Your task to perform on an android device: Add usb-c to usb-b to the cart on costco.com Image 0: 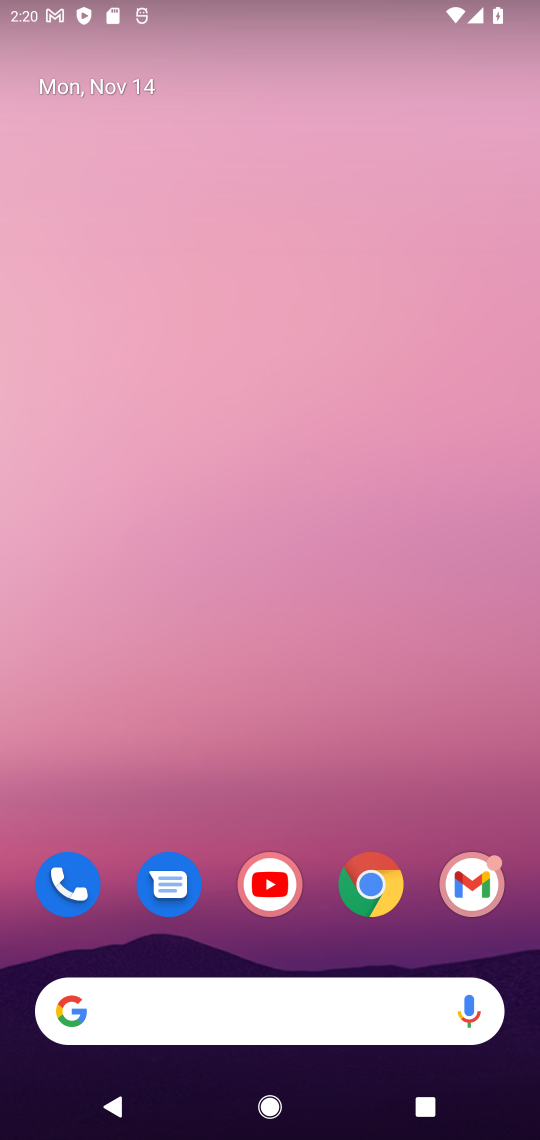
Step 0: click (378, 866)
Your task to perform on an android device: Add usb-c to usb-b to the cart on costco.com Image 1: 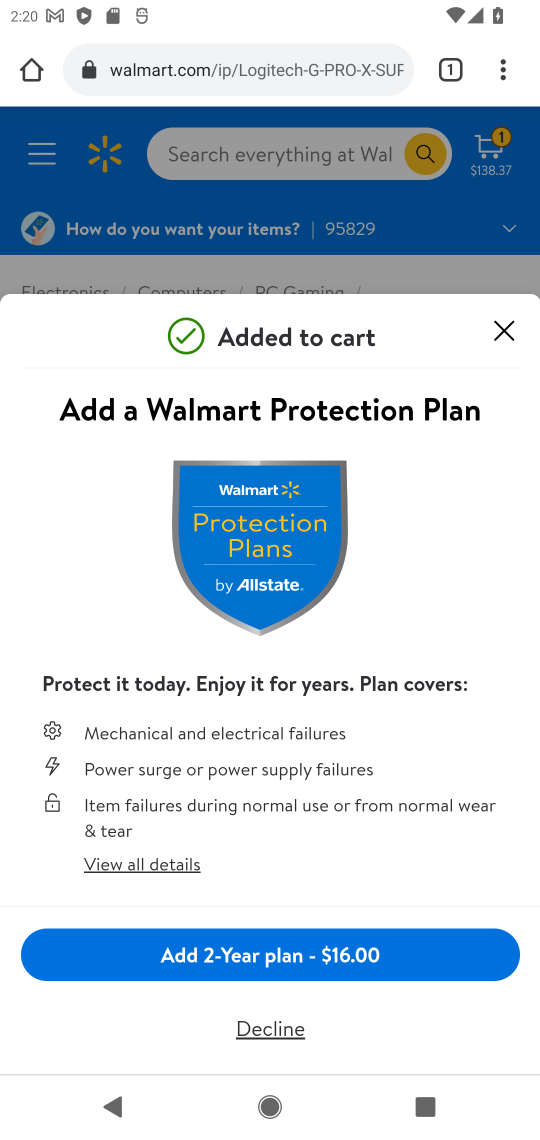
Step 1: click (346, 54)
Your task to perform on an android device: Add usb-c to usb-b to the cart on costco.com Image 2: 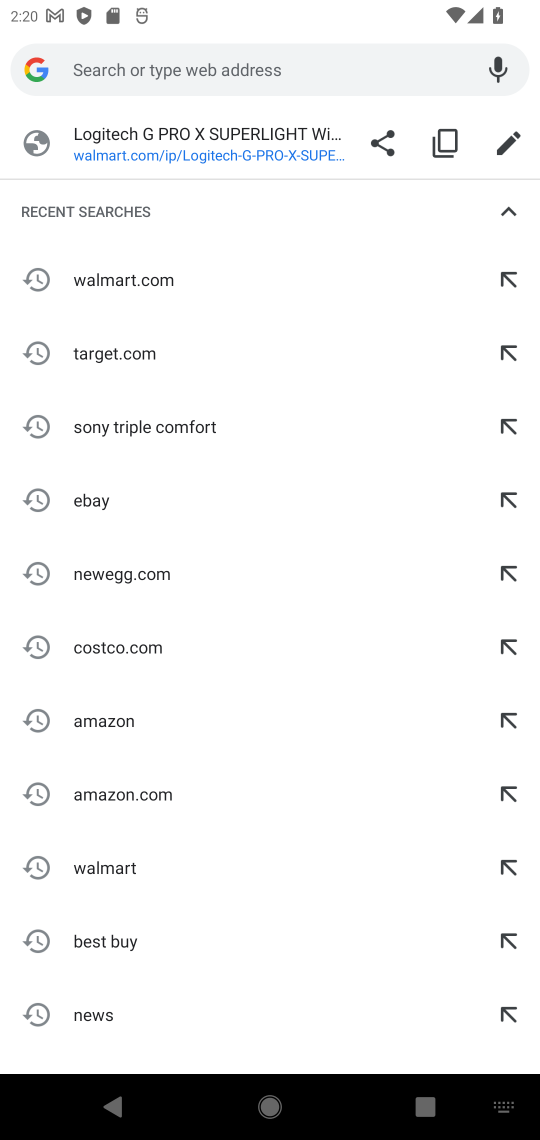
Step 2: click (146, 643)
Your task to perform on an android device: Add usb-c to usb-b to the cart on costco.com Image 3: 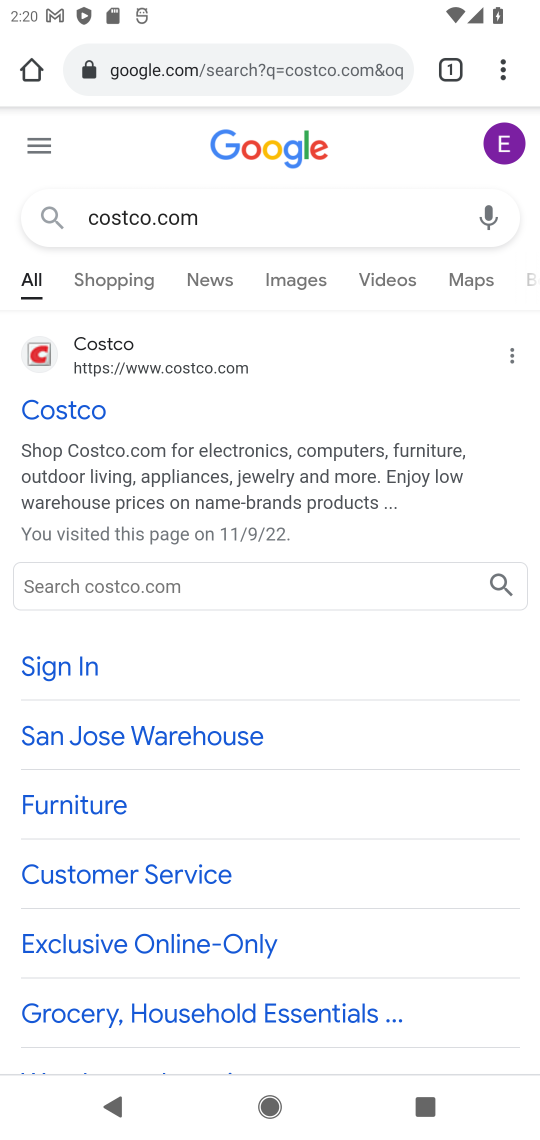
Step 3: click (118, 357)
Your task to perform on an android device: Add usb-c to usb-b to the cart on costco.com Image 4: 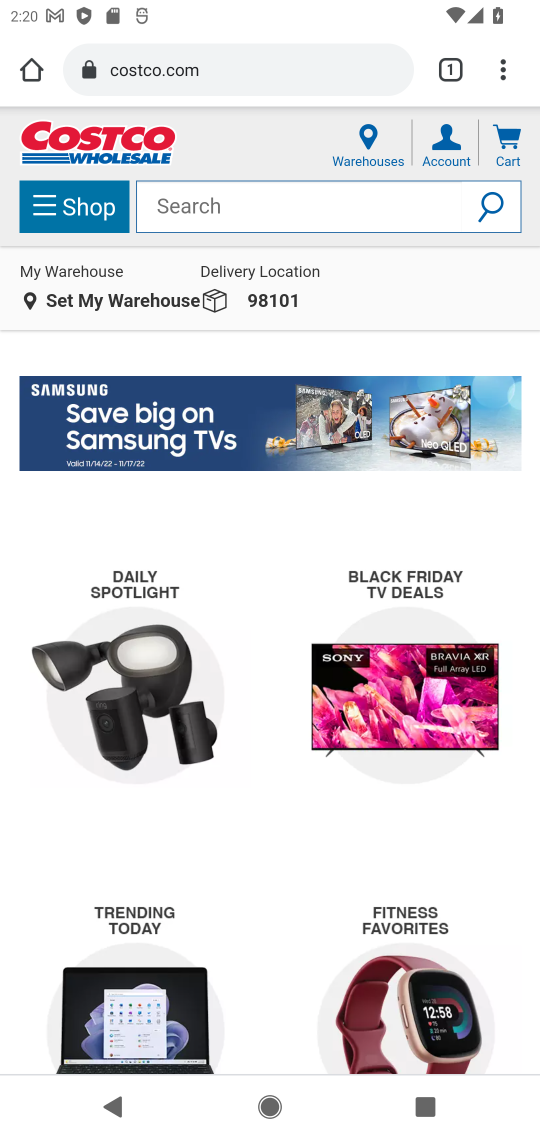
Step 4: click (396, 212)
Your task to perform on an android device: Add usb-c to usb-b to the cart on costco.com Image 5: 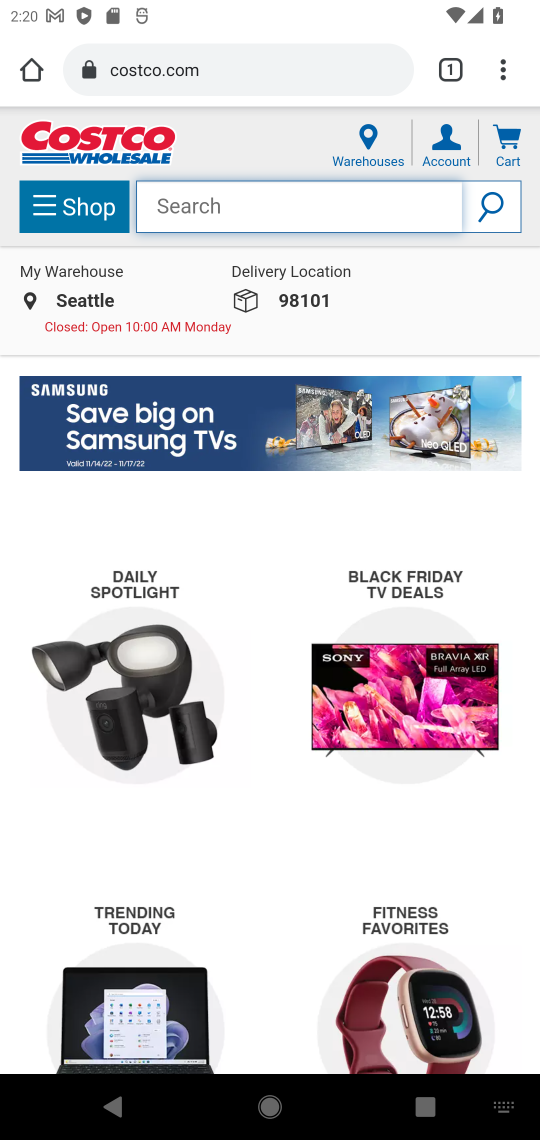
Step 5: press enter
Your task to perform on an android device: Add usb-c to usb-b to the cart on costco.com Image 6: 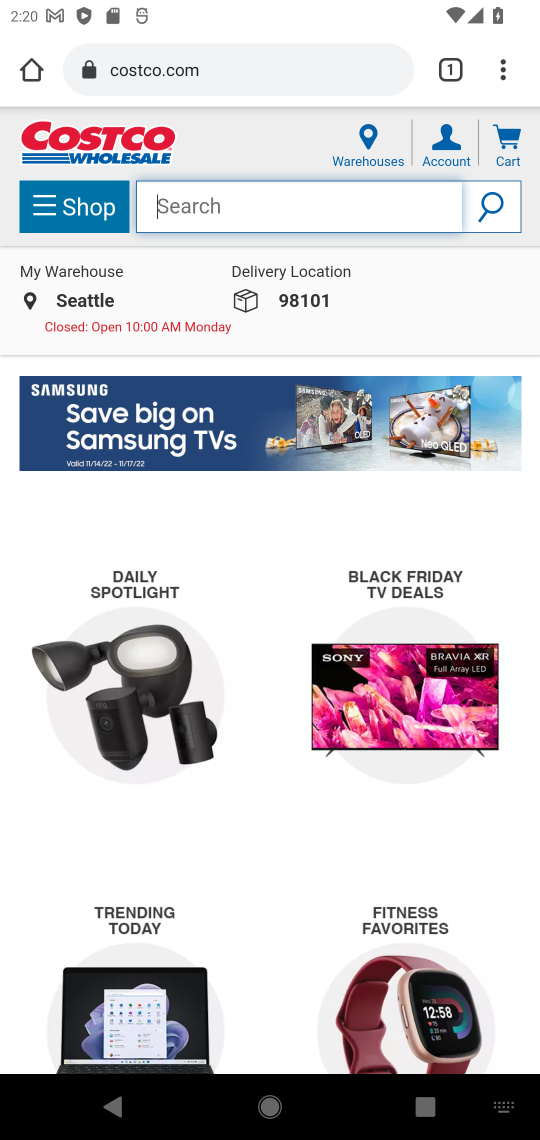
Step 6: type "usb-c to usb-b"
Your task to perform on an android device: Add usb-c to usb-b to the cart on costco.com Image 7: 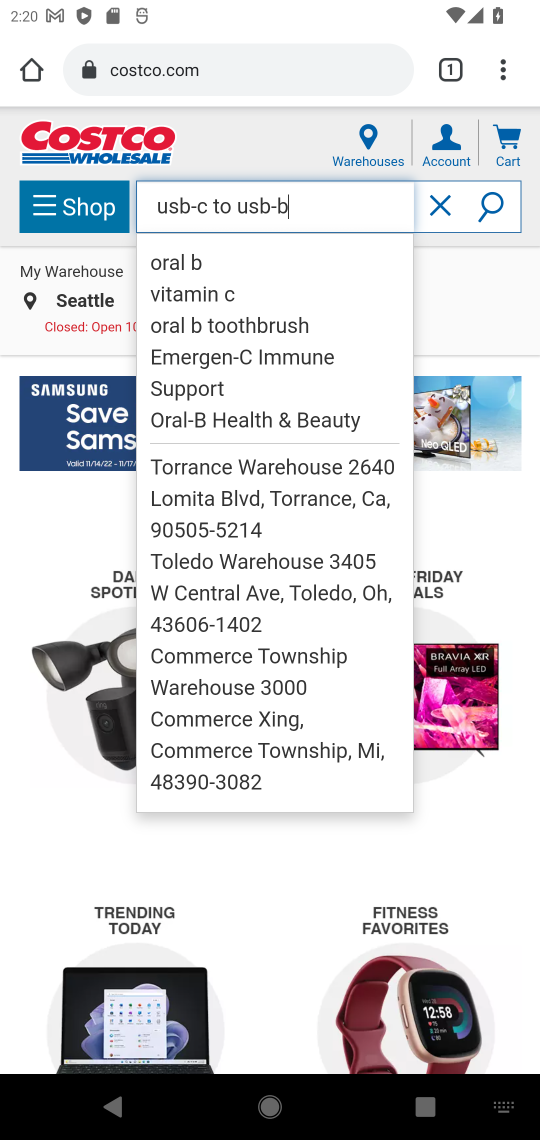
Step 7: click (495, 197)
Your task to perform on an android device: Add usb-c to usb-b to the cart on costco.com Image 8: 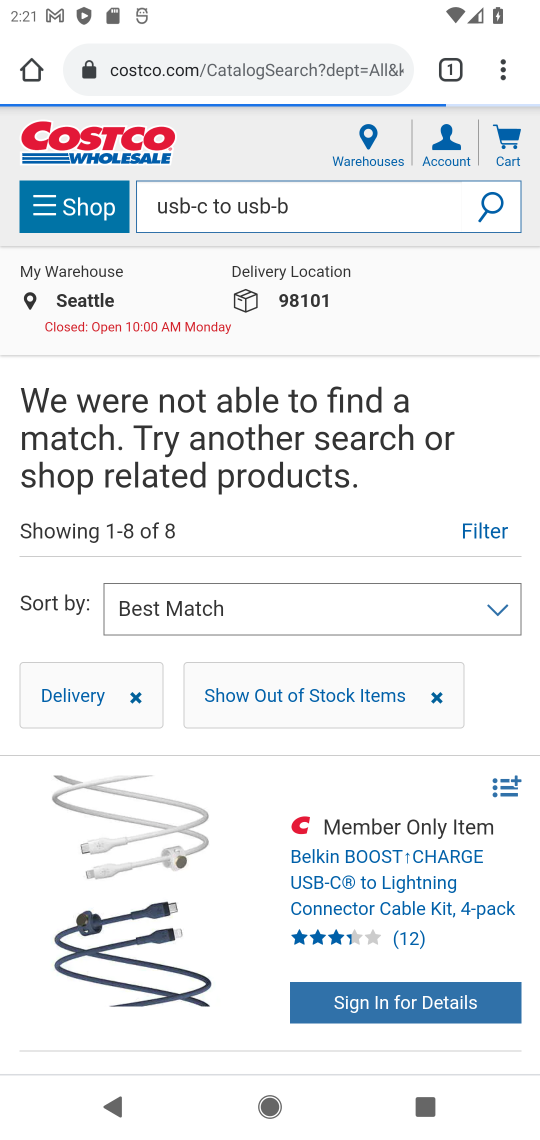
Step 8: task complete